Your task to perform on an android device: delete browsing data in the chrome app Image 0: 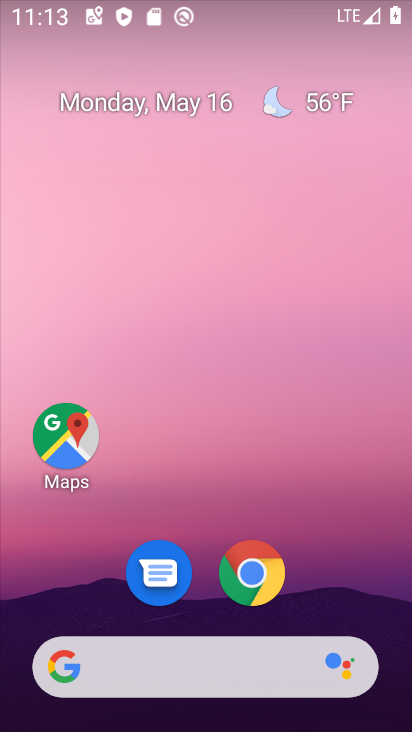
Step 0: click (254, 585)
Your task to perform on an android device: delete browsing data in the chrome app Image 1: 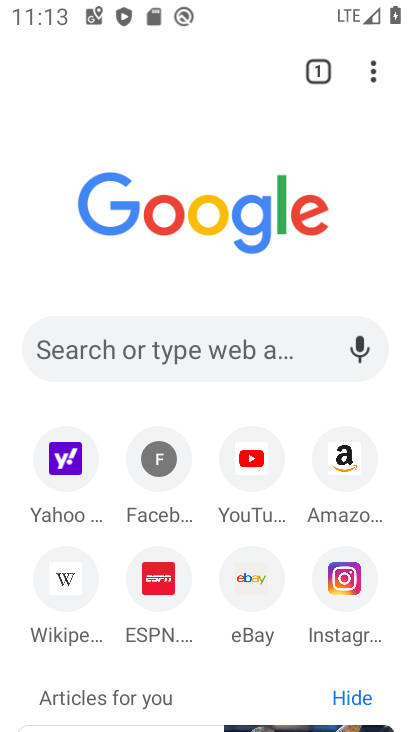
Step 1: click (371, 76)
Your task to perform on an android device: delete browsing data in the chrome app Image 2: 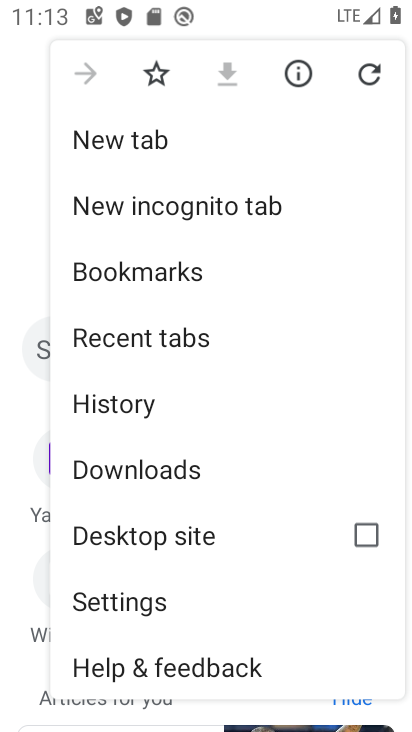
Step 2: click (126, 411)
Your task to perform on an android device: delete browsing data in the chrome app Image 3: 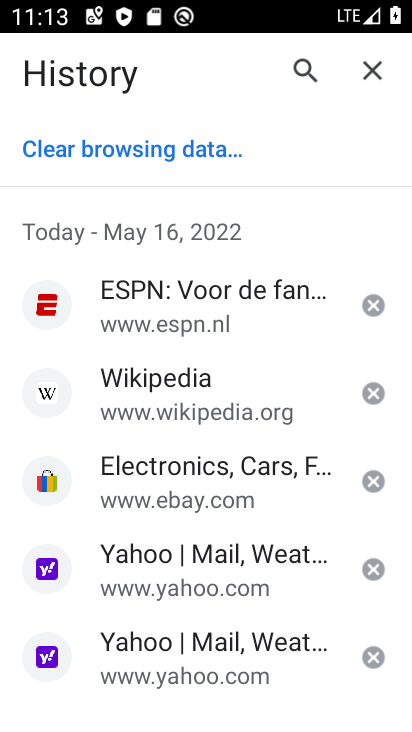
Step 3: click (155, 151)
Your task to perform on an android device: delete browsing data in the chrome app Image 4: 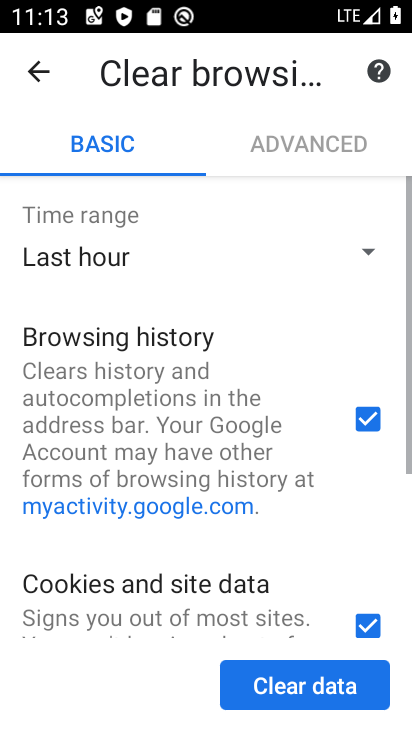
Step 4: click (318, 664)
Your task to perform on an android device: delete browsing data in the chrome app Image 5: 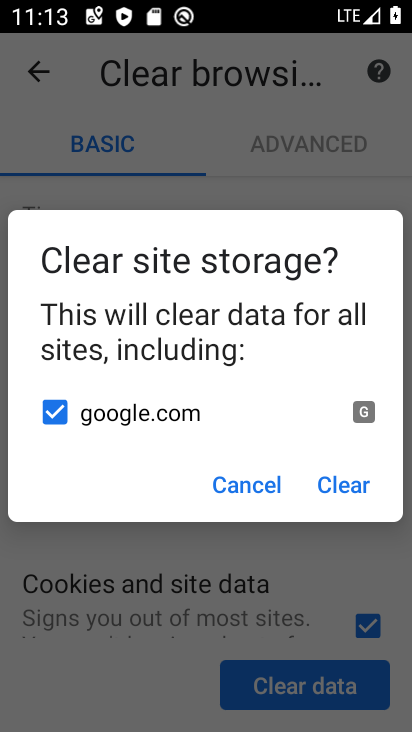
Step 5: click (357, 483)
Your task to perform on an android device: delete browsing data in the chrome app Image 6: 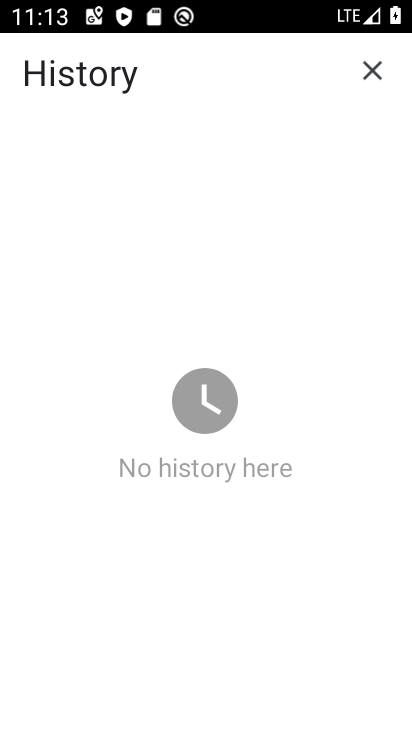
Step 6: task complete